Your task to perform on an android device: Open internet settings Image 0: 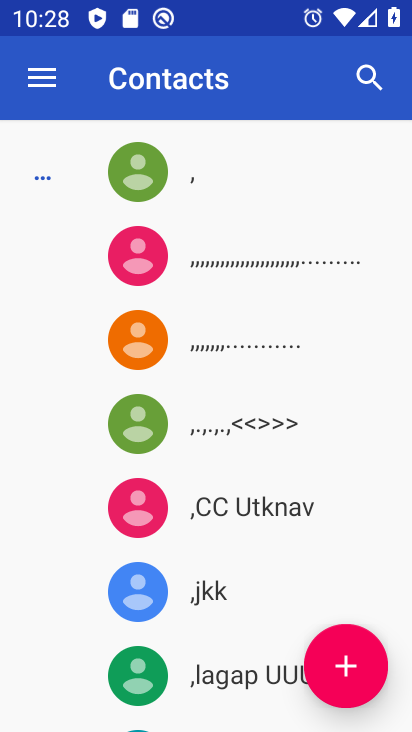
Step 0: press home button
Your task to perform on an android device: Open internet settings Image 1: 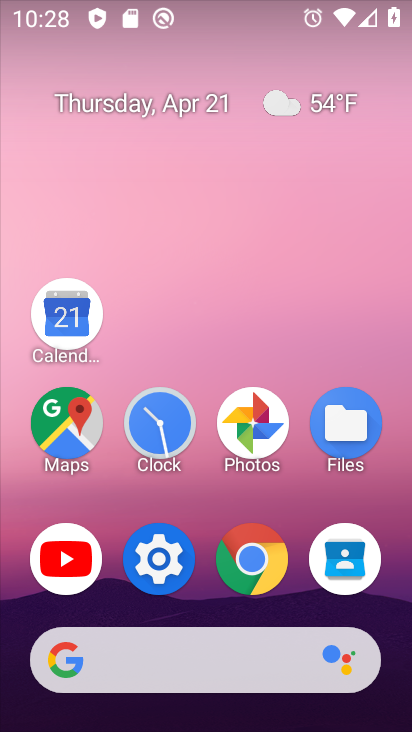
Step 1: click (156, 550)
Your task to perform on an android device: Open internet settings Image 2: 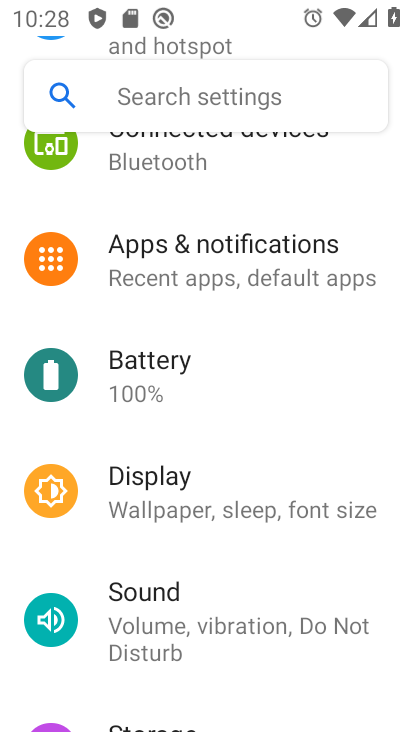
Step 2: drag from (185, 199) to (185, 493)
Your task to perform on an android device: Open internet settings Image 3: 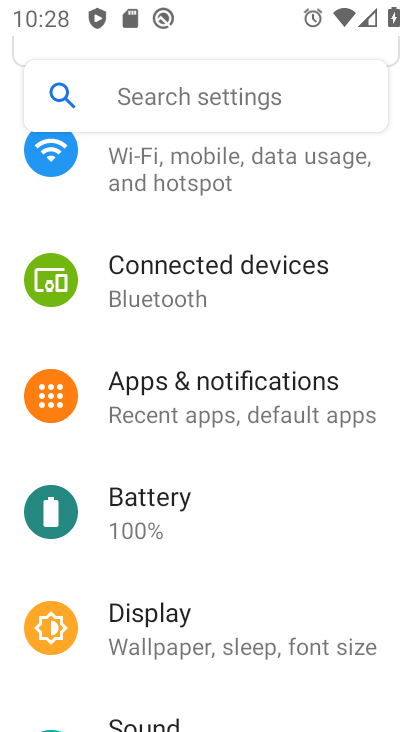
Step 3: drag from (289, 211) to (326, 654)
Your task to perform on an android device: Open internet settings Image 4: 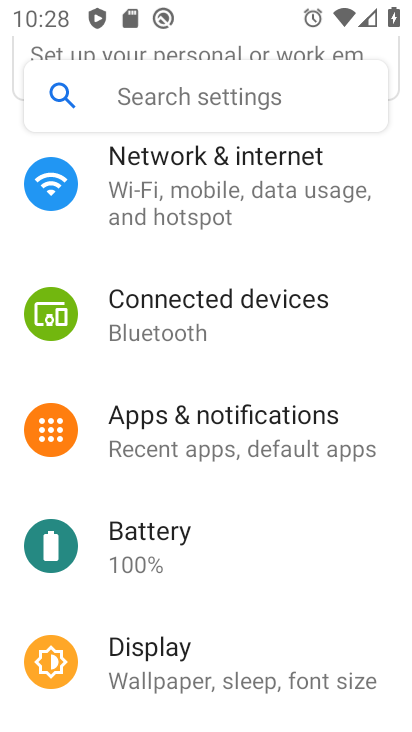
Step 4: click (213, 148)
Your task to perform on an android device: Open internet settings Image 5: 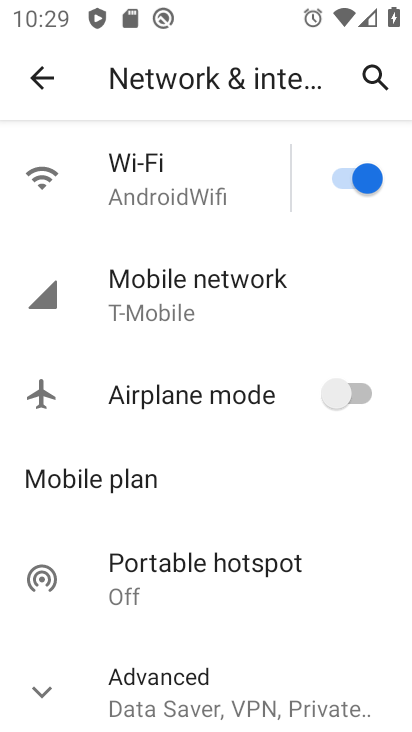
Step 5: task complete